Your task to perform on an android device: toggle improve location accuracy Image 0: 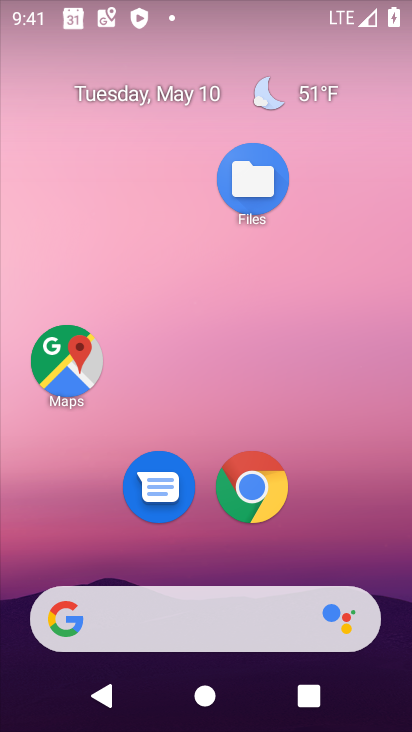
Step 0: drag from (222, 518) to (166, 33)
Your task to perform on an android device: toggle improve location accuracy Image 1: 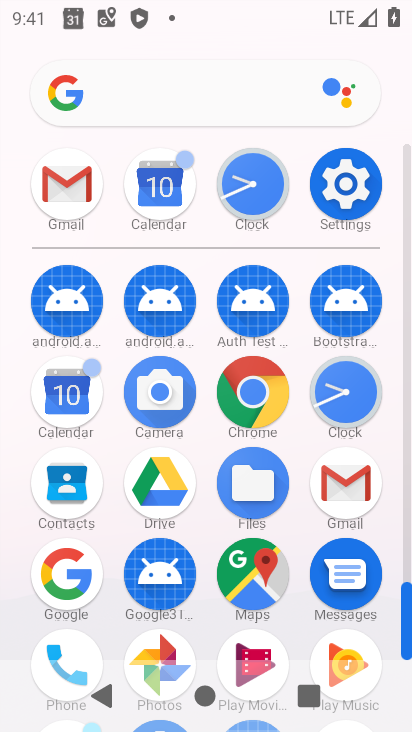
Step 1: click (338, 169)
Your task to perform on an android device: toggle improve location accuracy Image 2: 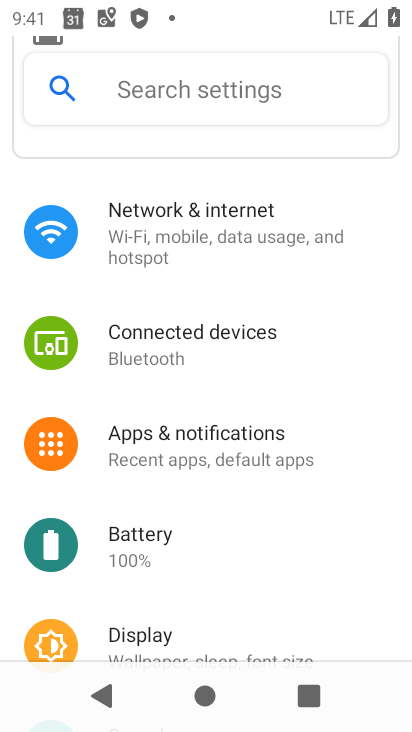
Step 2: drag from (227, 538) to (261, 83)
Your task to perform on an android device: toggle improve location accuracy Image 3: 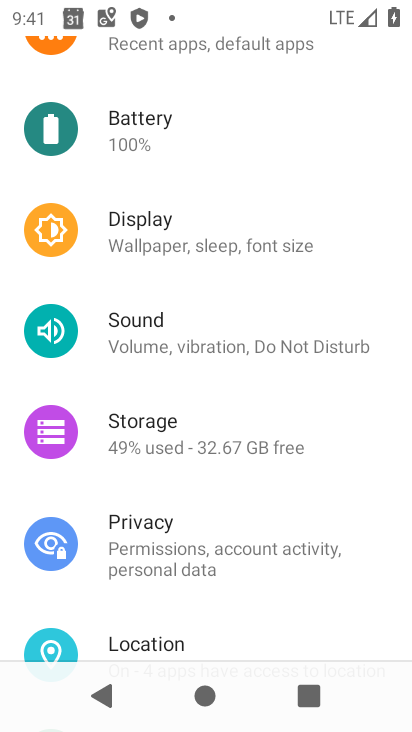
Step 3: drag from (233, 560) to (231, 348)
Your task to perform on an android device: toggle improve location accuracy Image 4: 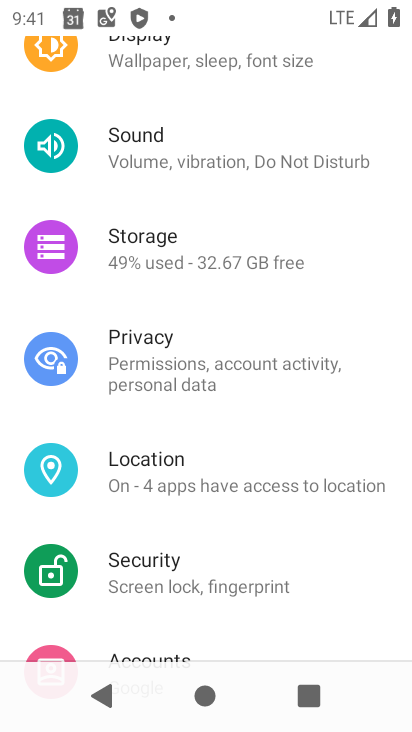
Step 4: click (187, 472)
Your task to perform on an android device: toggle improve location accuracy Image 5: 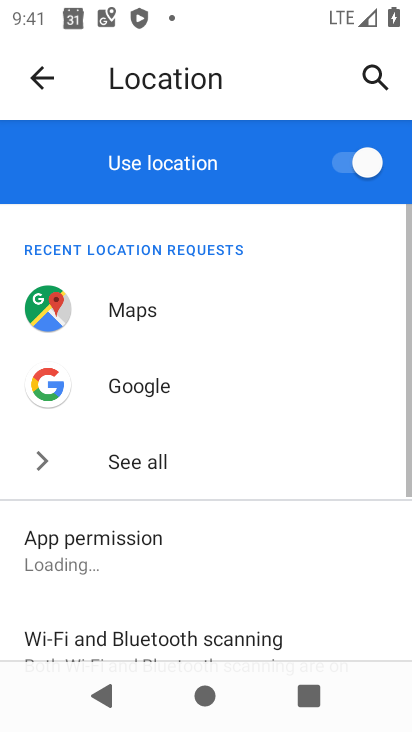
Step 5: drag from (227, 565) to (206, 118)
Your task to perform on an android device: toggle improve location accuracy Image 6: 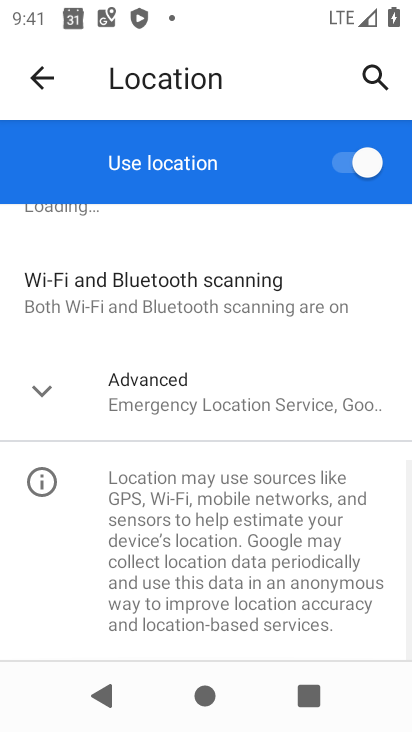
Step 6: click (165, 394)
Your task to perform on an android device: toggle improve location accuracy Image 7: 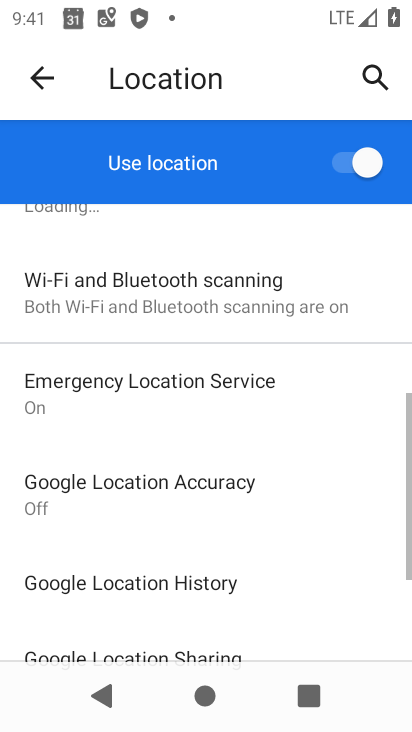
Step 7: drag from (252, 548) to (238, 363)
Your task to perform on an android device: toggle improve location accuracy Image 8: 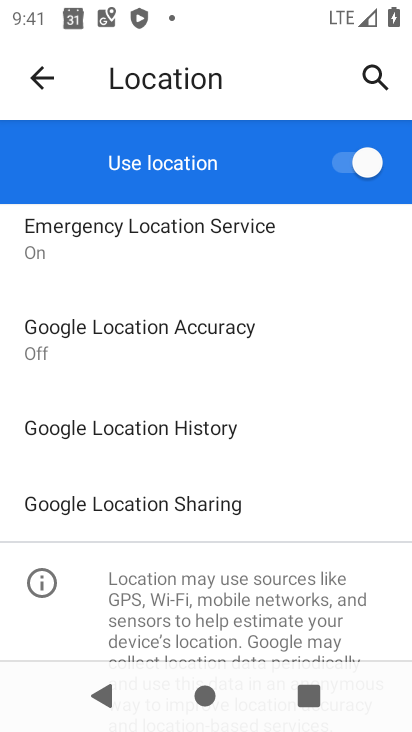
Step 8: click (93, 345)
Your task to perform on an android device: toggle improve location accuracy Image 9: 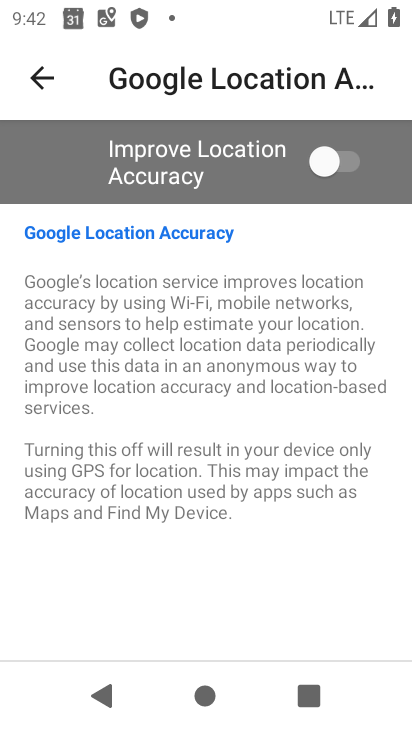
Step 9: click (332, 154)
Your task to perform on an android device: toggle improve location accuracy Image 10: 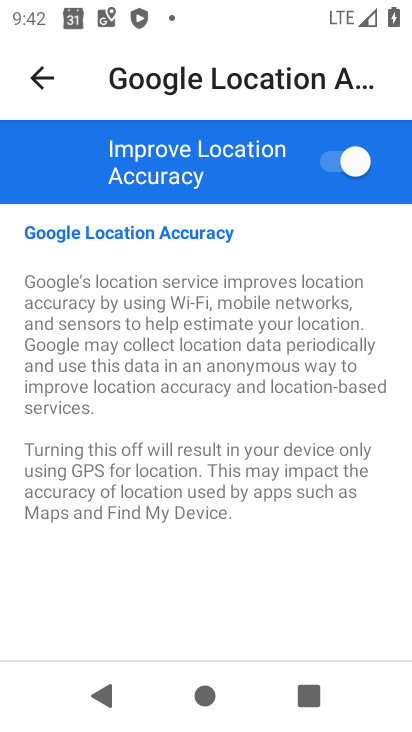
Step 10: task complete